Your task to perform on an android device: When is my next meeting? Image 0: 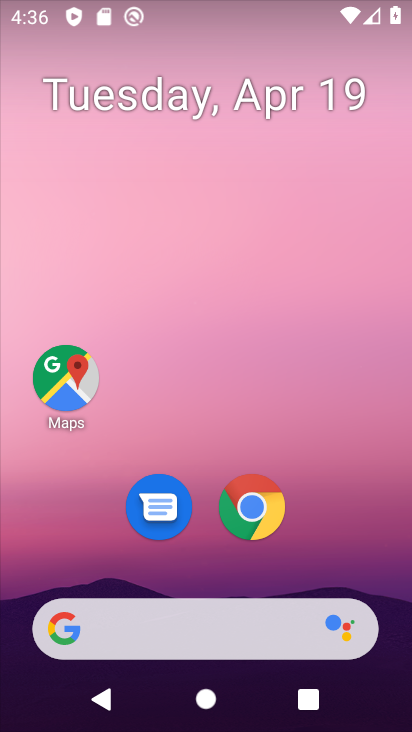
Step 0: drag from (320, 525) to (344, 106)
Your task to perform on an android device: When is my next meeting? Image 1: 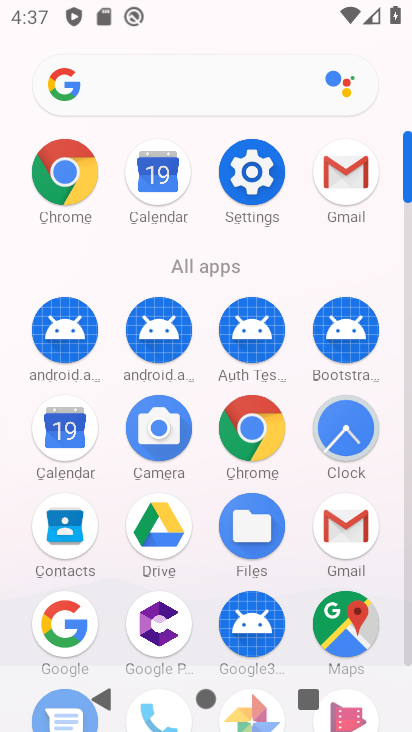
Step 1: click (75, 416)
Your task to perform on an android device: When is my next meeting? Image 2: 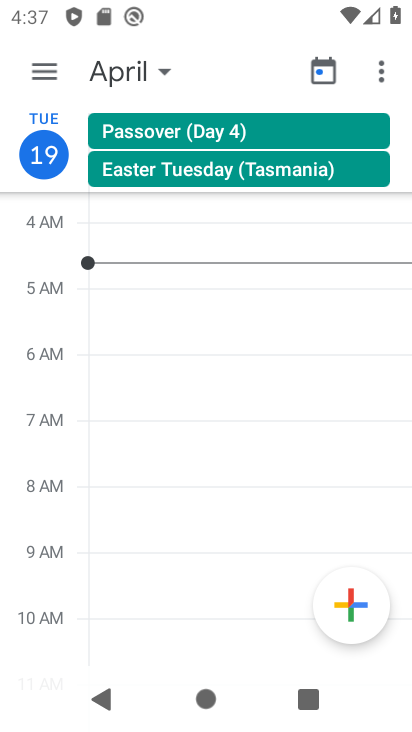
Step 2: click (126, 73)
Your task to perform on an android device: When is my next meeting? Image 3: 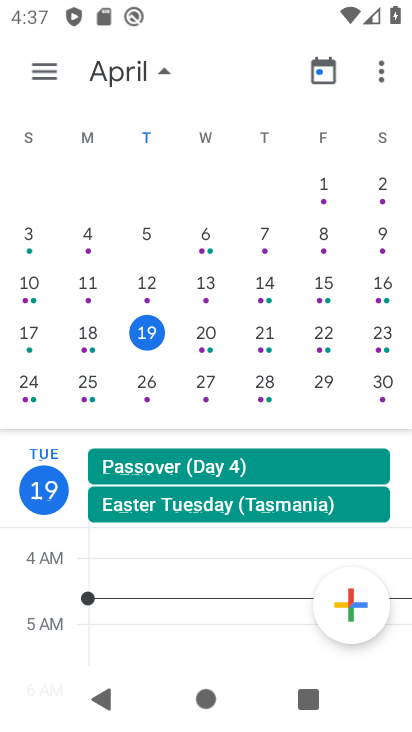
Step 3: click (203, 329)
Your task to perform on an android device: When is my next meeting? Image 4: 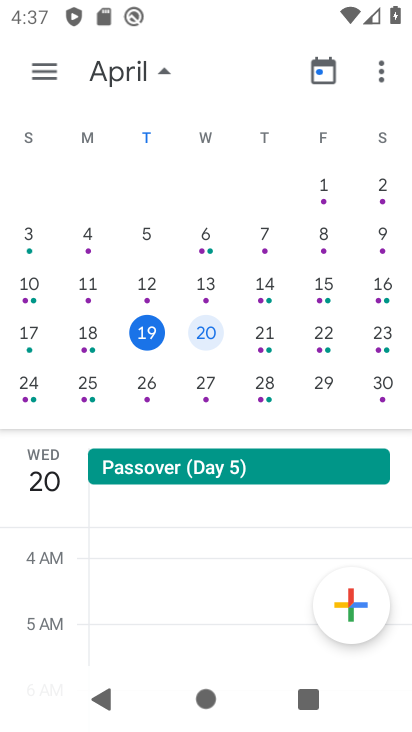
Step 4: click (161, 334)
Your task to perform on an android device: When is my next meeting? Image 5: 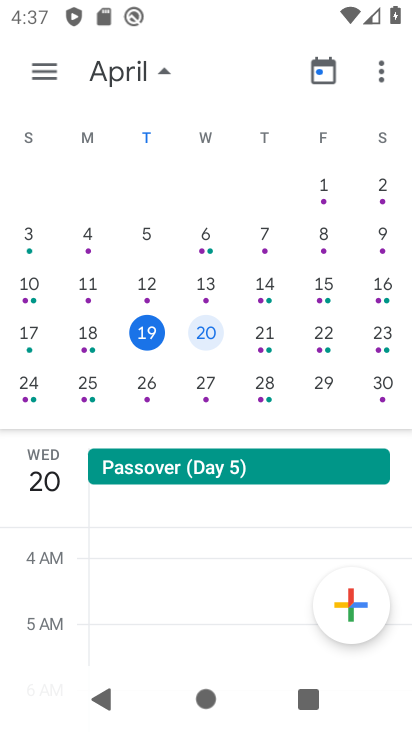
Step 5: click (266, 337)
Your task to perform on an android device: When is my next meeting? Image 6: 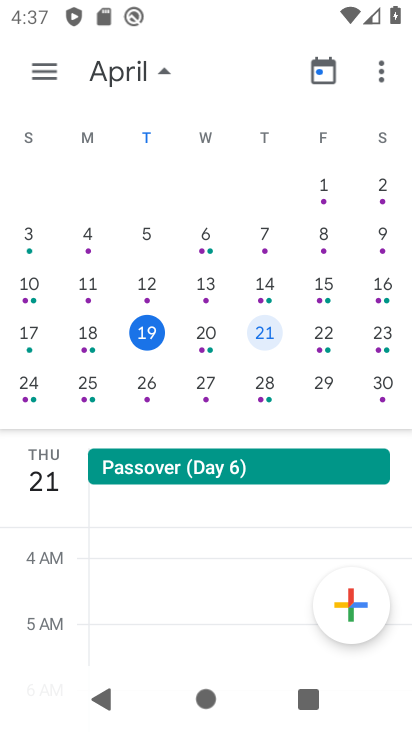
Step 6: click (208, 337)
Your task to perform on an android device: When is my next meeting? Image 7: 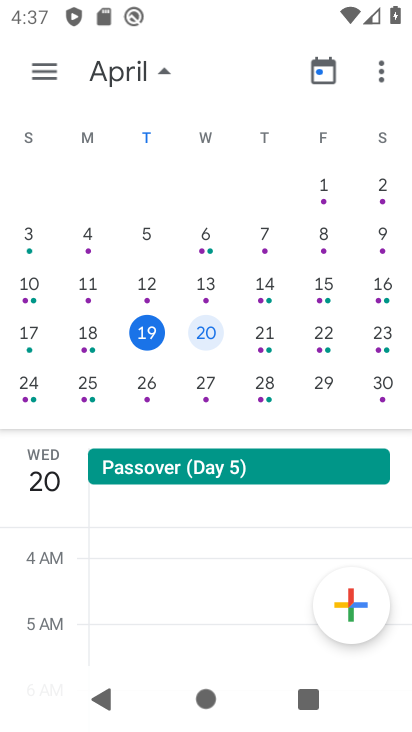
Step 7: click (153, 341)
Your task to perform on an android device: When is my next meeting? Image 8: 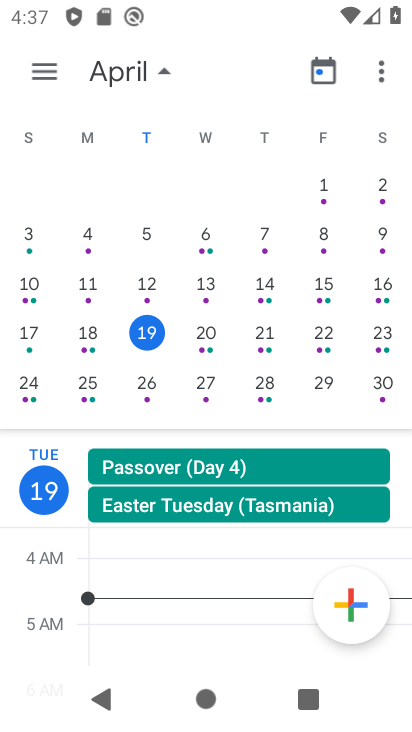
Step 8: task complete